Your task to perform on an android device: turn pop-ups off in chrome Image 0: 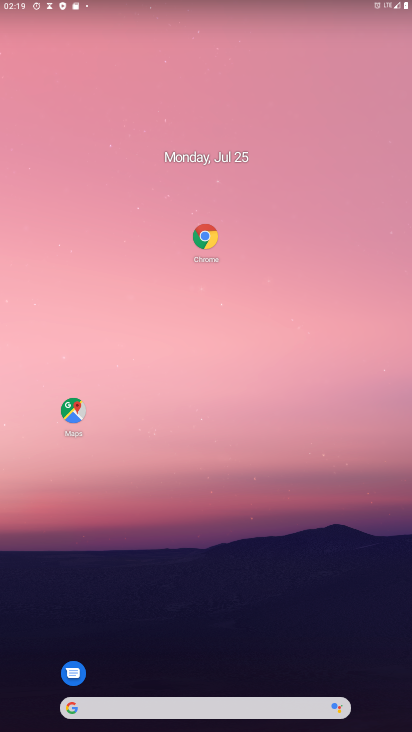
Step 0: drag from (243, 692) to (322, 39)
Your task to perform on an android device: turn pop-ups off in chrome Image 1: 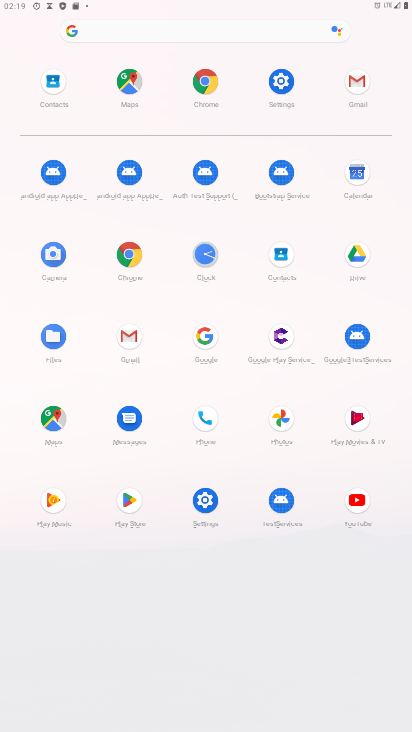
Step 1: click (130, 249)
Your task to perform on an android device: turn pop-ups off in chrome Image 2: 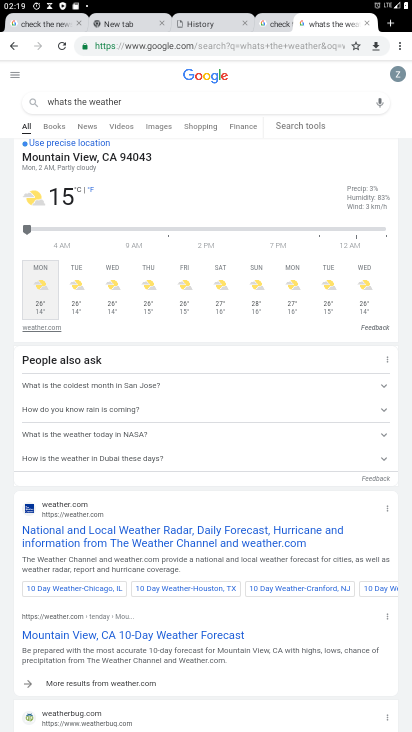
Step 2: drag from (403, 43) to (313, 283)
Your task to perform on an android device: turn pop-ups off in chrome Image 3: 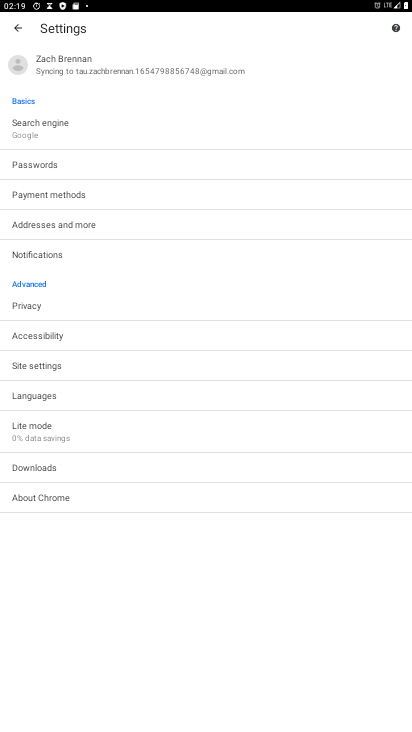
Step 3: click (44, 371)
Your task to perform on an android device: turn pop-ups off in chrome Image 4: 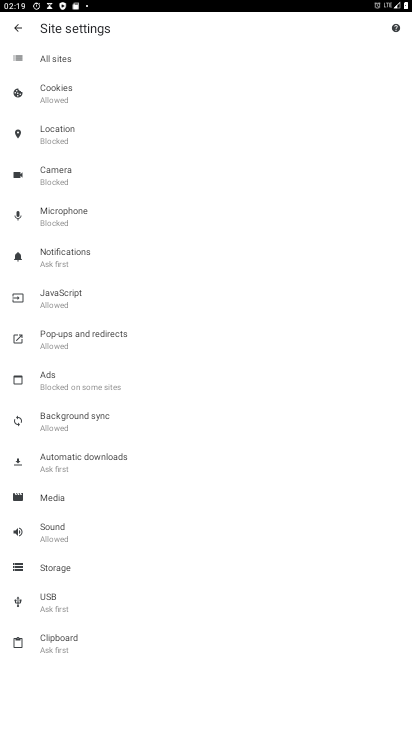
Step 4: click (100, 338)
Your task to perform on an android device: turn pop-ups off in chrome Image 5: 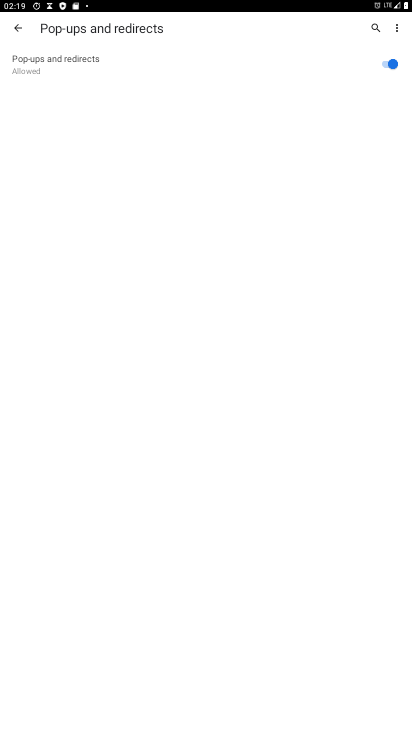
Step 5: click (389, 62)
Your task to perform on an android device: turn pop-ups off in chrome Image 6: 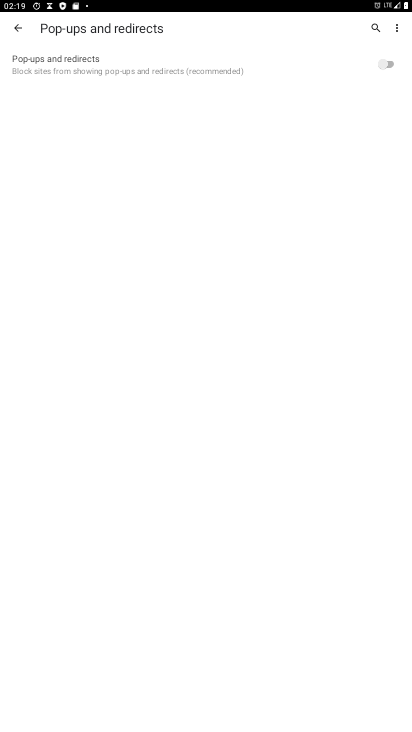
Step 6: task complete